Your task to perform on an android device: Open Wikipedia Image 0: 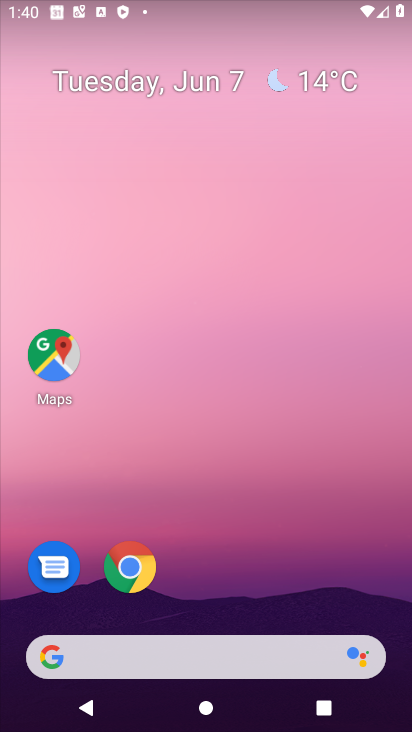
Step 0: drag from (297, 637) to (285, 80)
Your task to perform on an android device: Open Wikipedia Image 1: 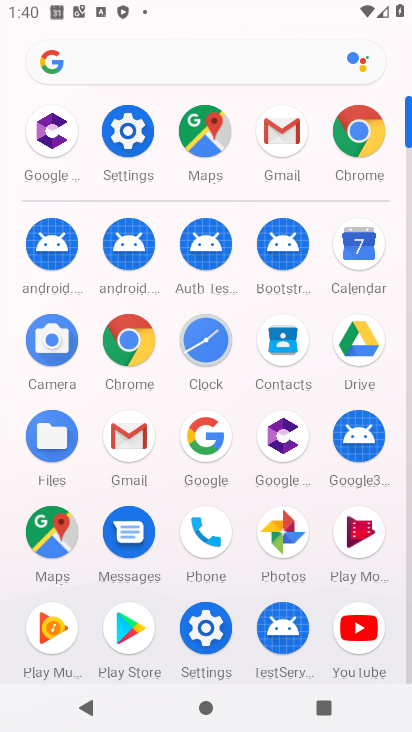
Step 1: click (129, 350)
Your task to perform on an android device: Open Wikipedia Image 2: 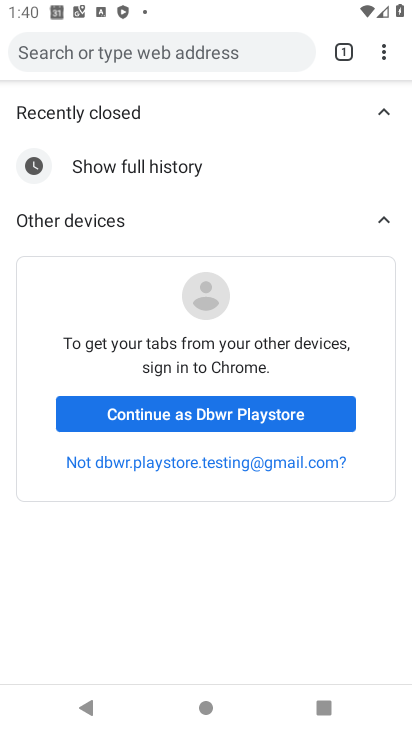
Step 2: drag from (385, 57) to (327, 127)
Your task to perform on an android device: Open Wikipedia Image 3: 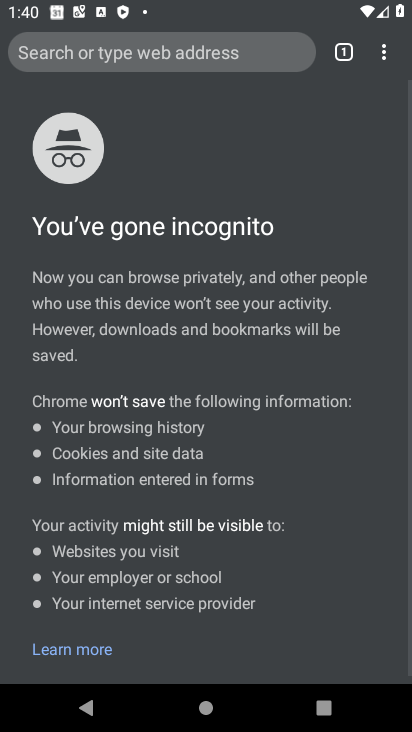
Step 3: click (253, 63)
Your task to perform on an android device: Open Wikipedia Image 4: 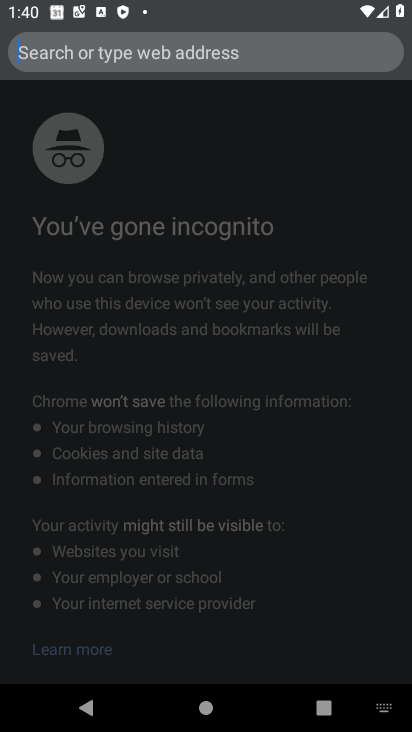
Step 4: press back button
Your task to perform on an android device: Open Wikipedia Image 5: 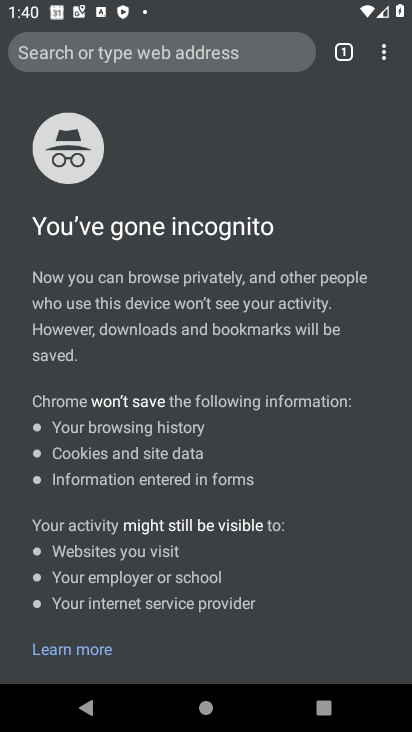
Step 5: press back button
Your task to perform on an android device: Open Wikipedia Image 6: 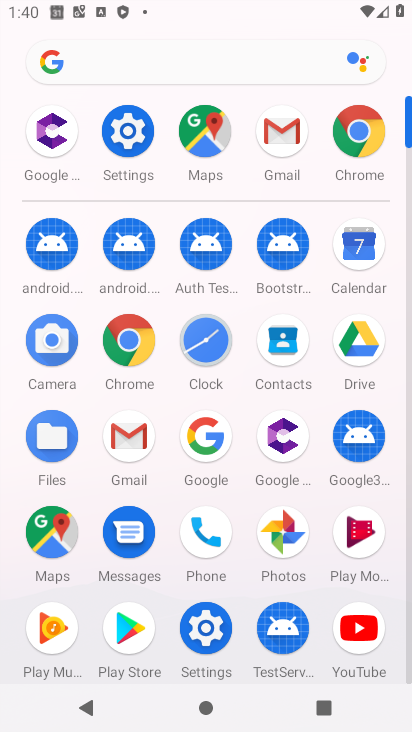
Step 6: click (138, 339)
Your task to perform on an android device: Open Wikipedia Image 7: 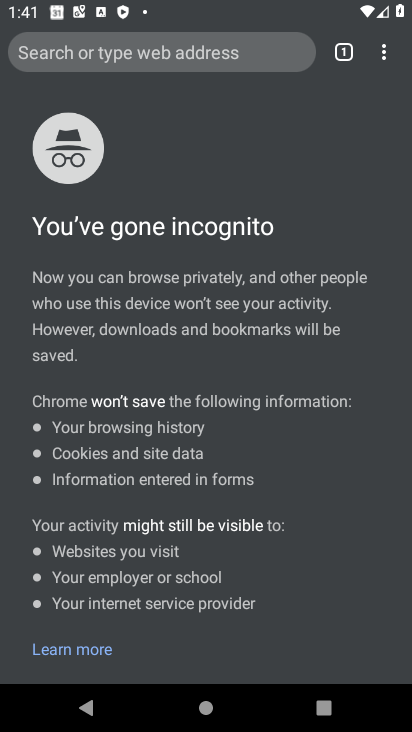
Step 7: click (382, 53)
Your task to perform on an android device: Open Wikipedia Image 8: 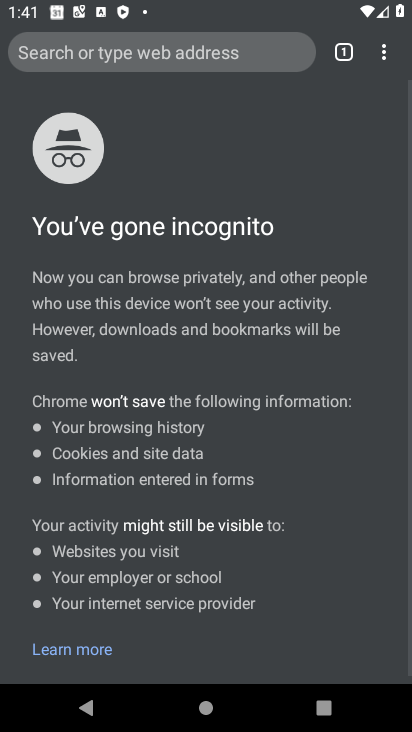
Step 8: drag from (384, 49) to (329, 86)
Your task to perform on an android device: Open Wikipedia Image 9: 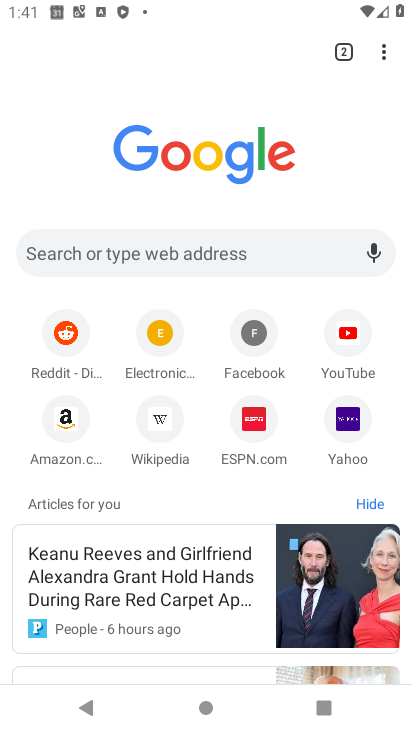
Step 9: click (159, 425)
Your task to perform on an android device: Open Wikipedia Image 10: 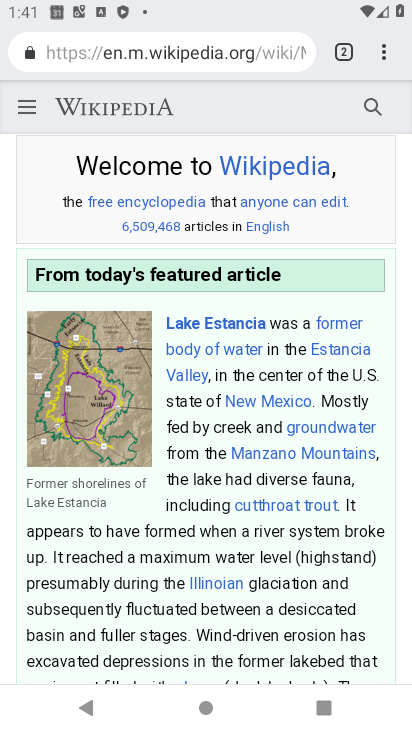
Step 10: task complete